Your task to perform on an android device: set default search engine in the chrome app Image 0: 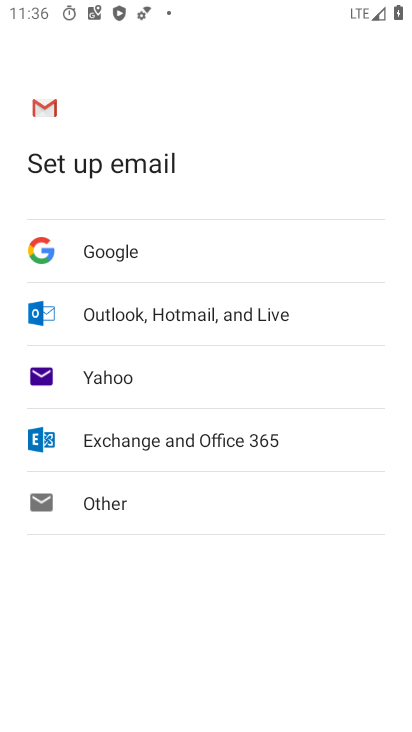
Step 0: press home button
Your task to perform on an android device: set default search engine in the chrome app Image 1: 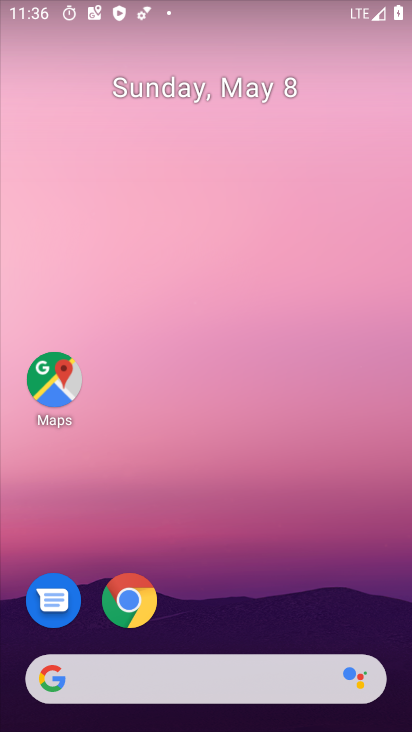
Step 1: click (135, 603)
Your task to perform on an android device: set default search engine in the chrome app Image 2: 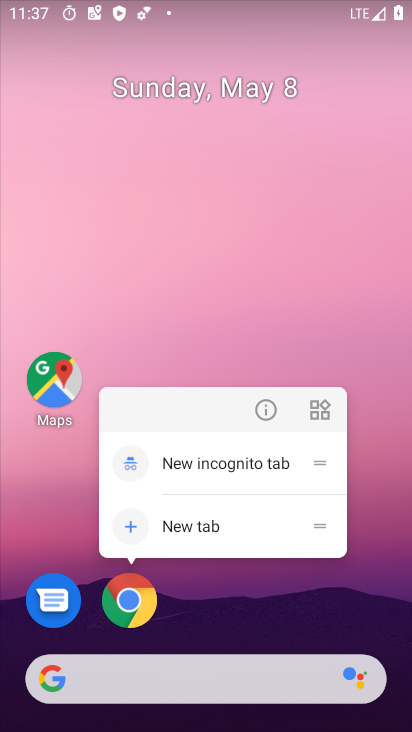
Step 2: drag from (259, 645) to (242, 236)
Your task to perform on an android device: set default search engine in the chrome app Image 3: 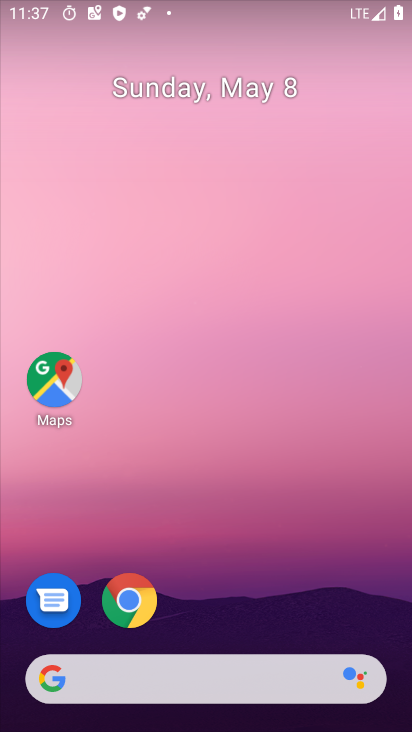
Step 3: drag from (216, 579) to (231, 173)
Your task to perform on an android device: set default search engine in the chrome app Image 4: 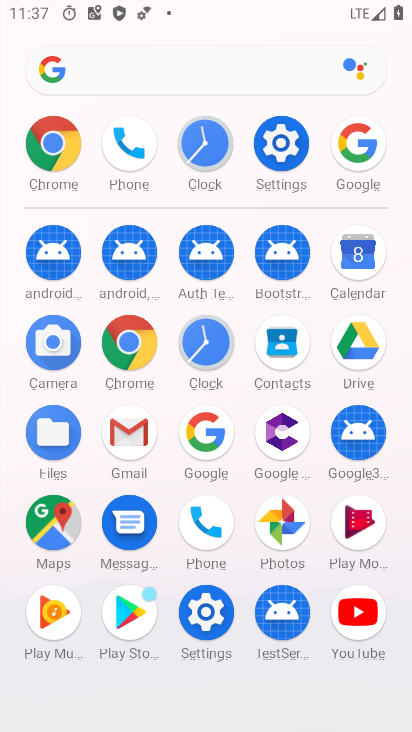
Step 4: click (128, 350)
Your task to perform on an android device: set default search engine in the chrome app Image 5: 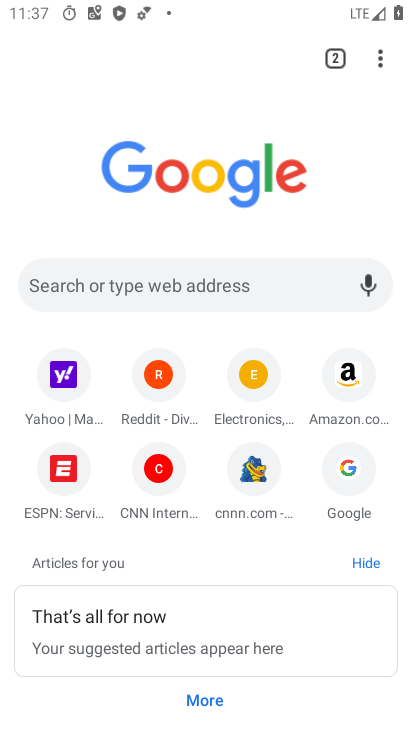
Step 5: click (380, 62)
Your task to perform on an android device: set default search engine in the chrome app Image 6: 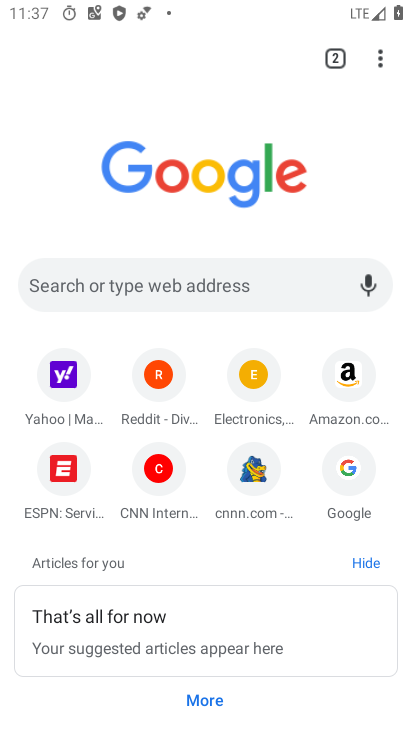
Step 6: click (384, 50)
Your task to perform on an android device: set default search engine in the chrome app Image 7: 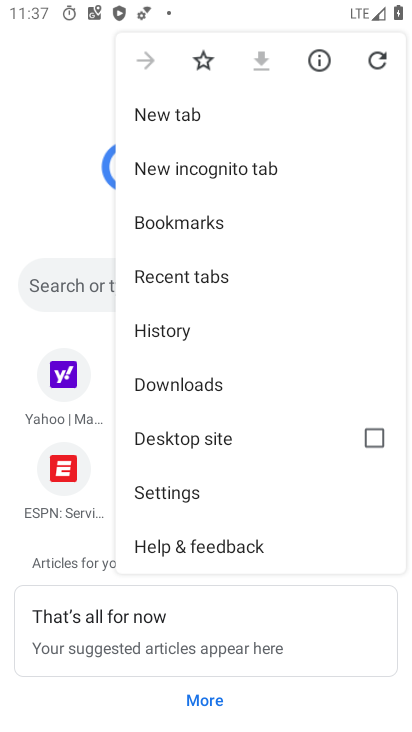
Step 7: drag from (282, 413) to (313, 115)
Your task to perform on an android device: set default search engine in the chrome app Image 8: 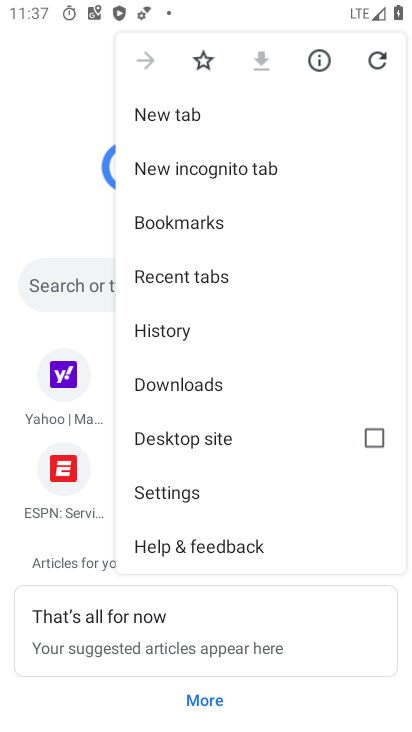
Step 8: click (233, 486)
Your task to perform on an android device: set default search engine in the chrome app Image 9: 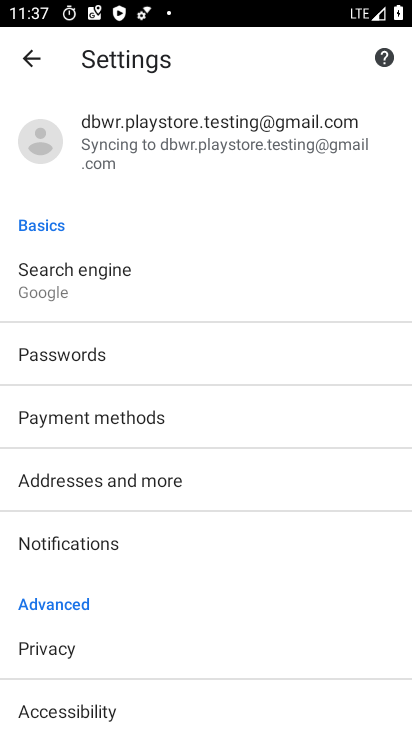
Step 9: drag from (232, 638) to (271, 373)
Your task to perform on an android device: set default search engine in the chrome app Image 10: 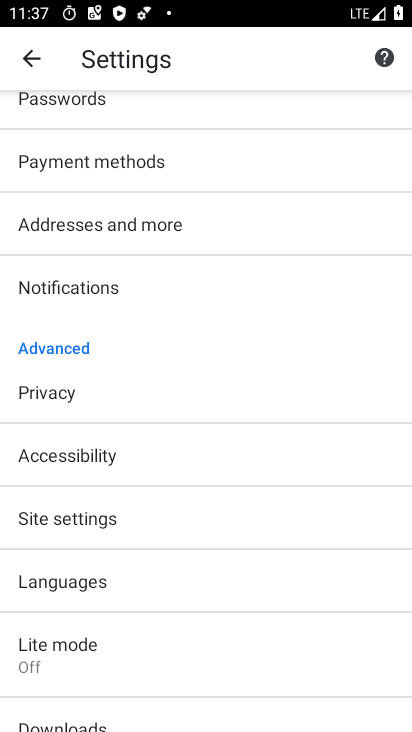
Step 10: drag from (223, 142) to (241, 389)
Your task to perform on an android device: set default search engine in the chrome app Image 11: 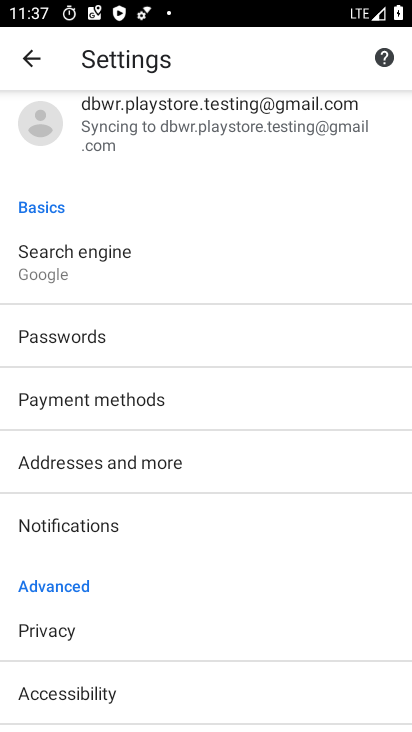
Step 11: click (205, 272)
Your task to perform on an android device: set default search engine in the chrome app Image 12: 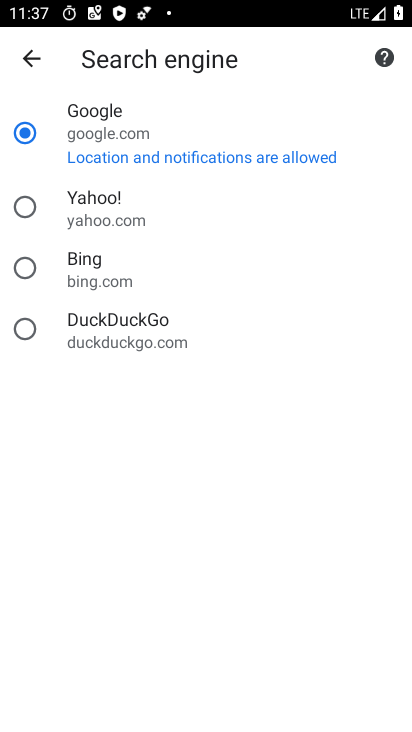
Step 12: click (222, 174)
Your task to perform on an android device: set default search engine in the chrome app Image 13: 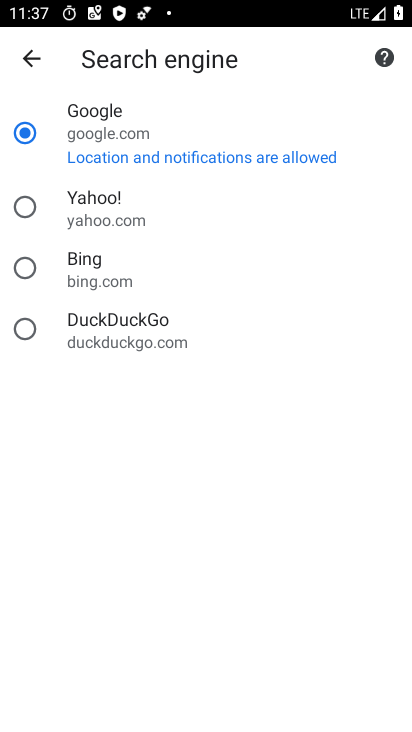
Step 13: task complete